Your task to perform on an android device: move an email to a new category in the gmail app Image 0: 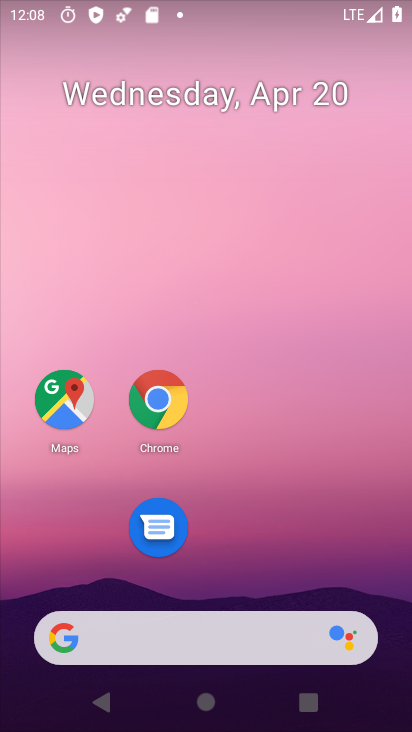
Step 0: drag from (258, 594) to (243, 106)
Your task to perform on an android device: move an email to a new category in the gmail app Image 1: 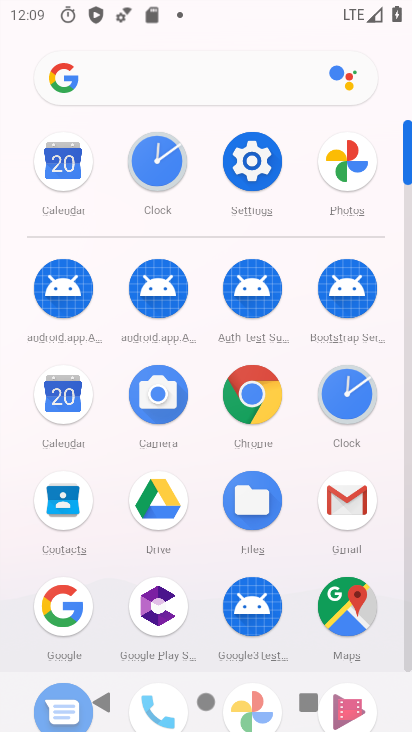
Step 1: click (351, 504)
Your task to perform on an android device: move an email to a new category in the gmail app Image 2: 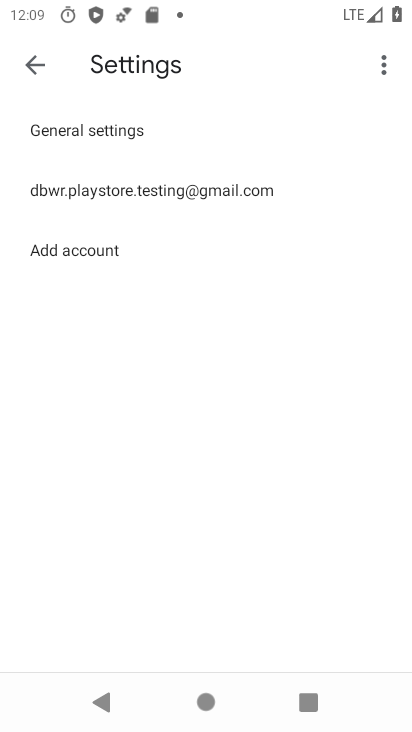
Step 2: click (119, 202)
Your task to perform on an android device: move an email to a new category in the gmail app Image 3: 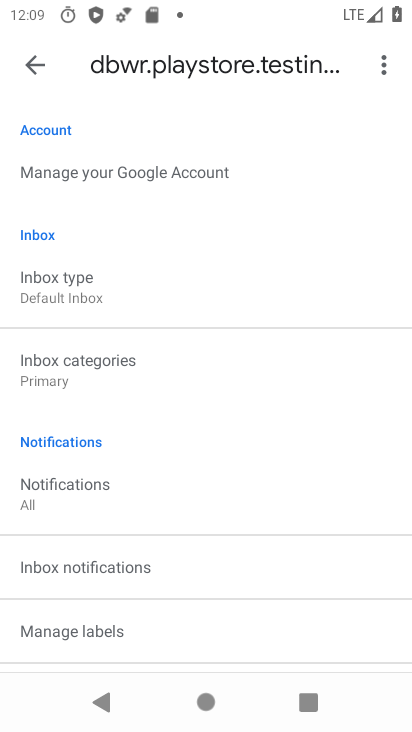
Step 3: click (100, 369)
Your task to perform on an android device: move an email to a new category in the gmail app Image 4: 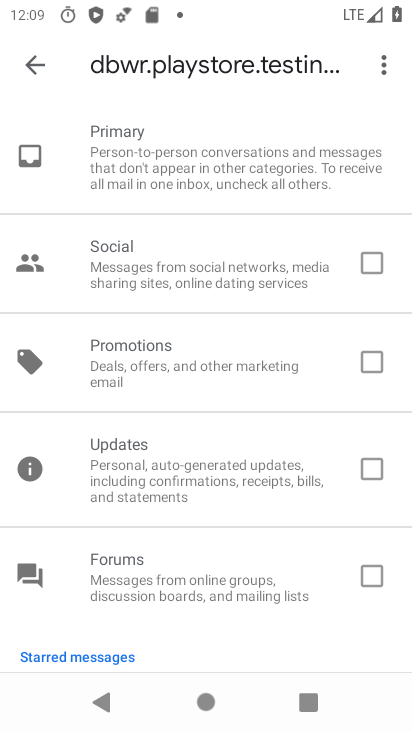
Step 4: task complete